Your task to perform on an android device: Open Maps and search for coffee Image 0: 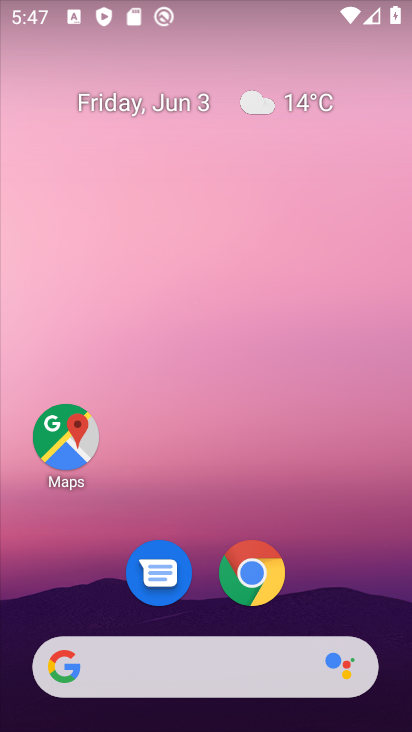
Step 0: click (302, 2)
Your task to perform on an android device: Open Maps and search for coffee Image 1: 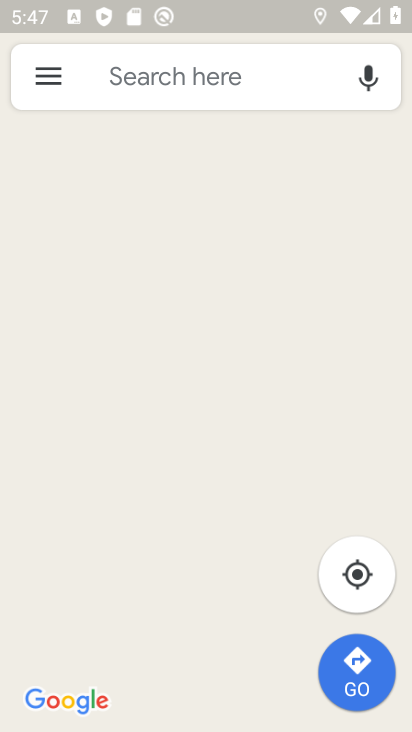
Step 1: press home button
Your task to perform on an android device: Open Maps and search for coffee Image 2: 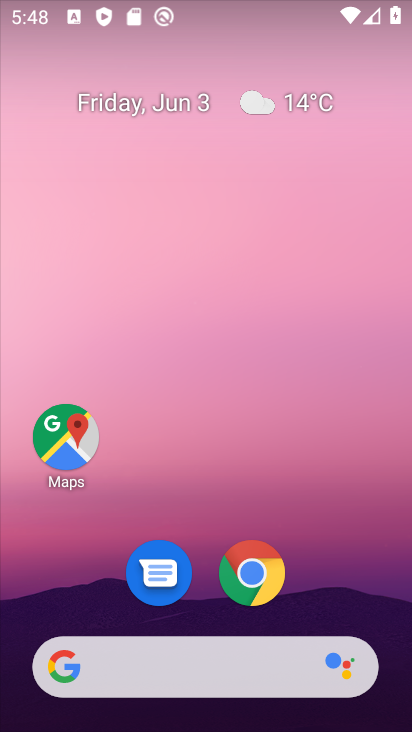
Step 2: drag from (255, 666) to (156, 3)
Your task to perform on an android device: Open Maps and search for coffee Image 3: 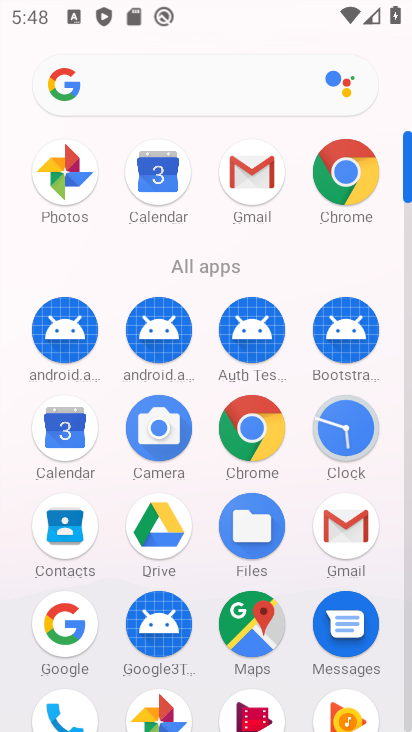
Step 3: click (269, 614)
Your task to perform on an android device: Open Maps and search for coffee Image 4: 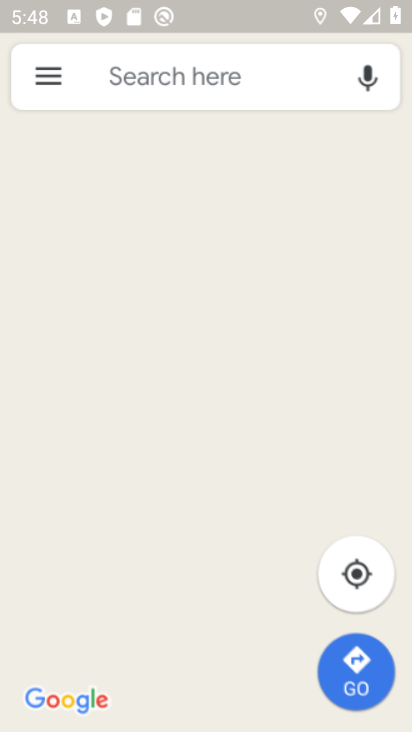
Step 4: click (164, 65)
Your task to perform on an android device: Open Maps and search for coffee Image 5: 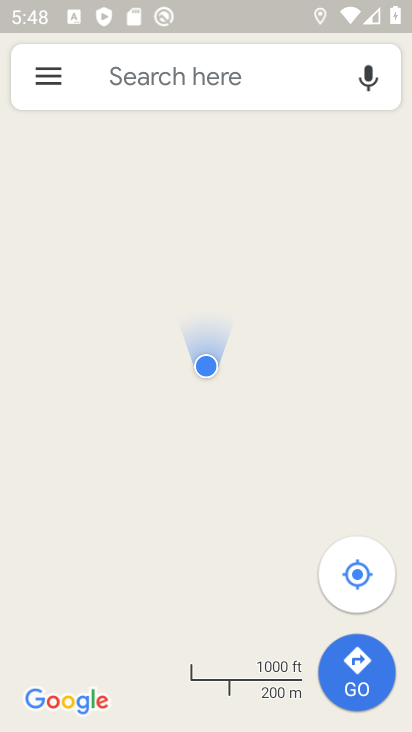
Step 5: click (226, 68)
Your task to perform on an android device: Open Maps and search for coffee Image 6: 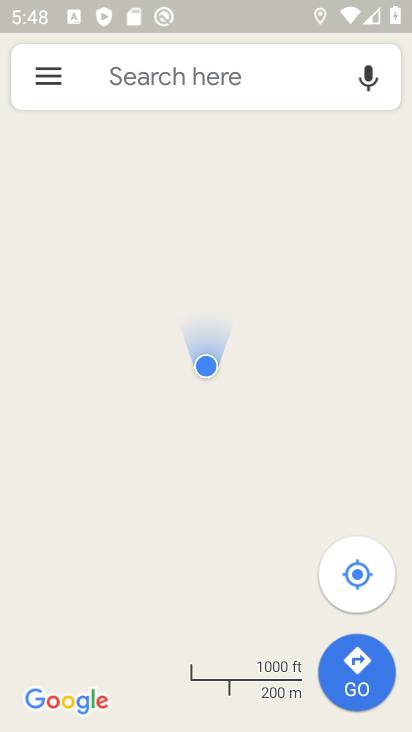
Step 6: click (226, 68)
Your task to perform on an android device: Open Maps and search for coffee Image 7: 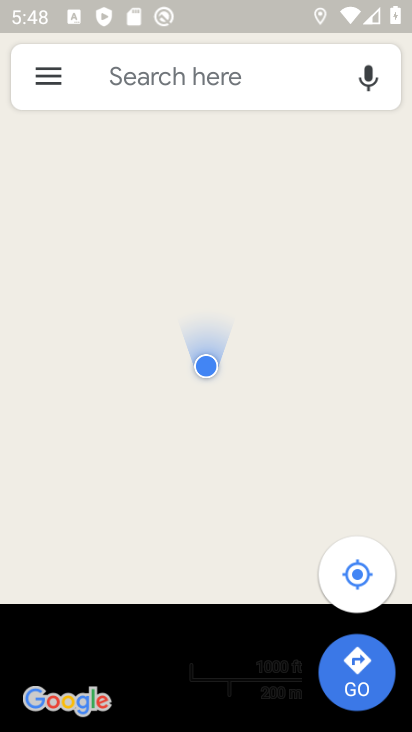
Step 7: click (145, 71)
Your task to perform on an android device: Open Maps and search for coffee Image 8: 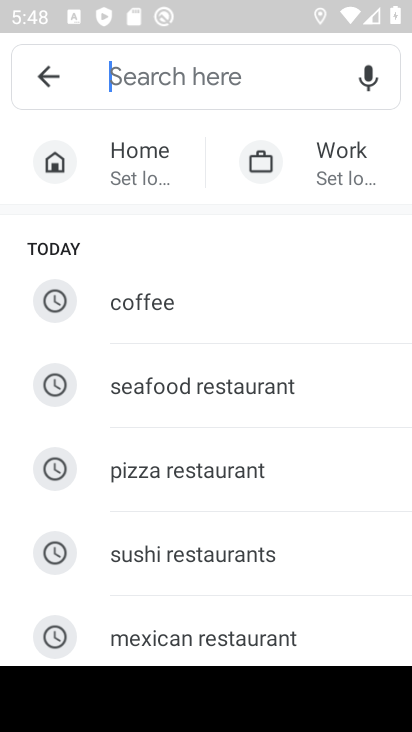
Step 8: click (212, 321)
Your task to perform on an android device: Open Maps and search for coffee Image 9: 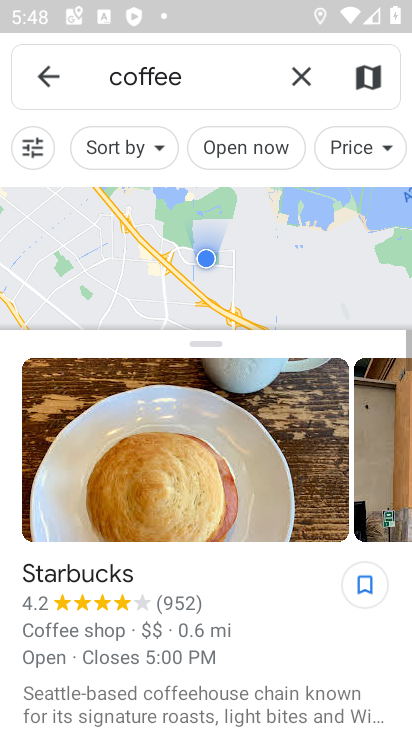
Step 9: task complete